Your task to perform on an android device: Open the map Image 0: 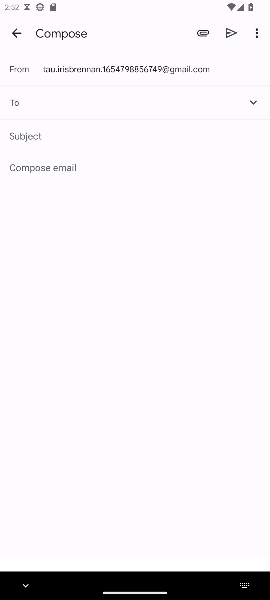
Step 0: press home button
Your task to perform on an android device: Open the map Image 1: 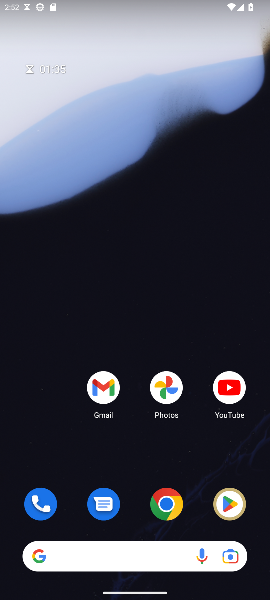
Step 1: drag from (140, 555) to (137, 343)
Your task to perform on an android device: Open the map Image 2: 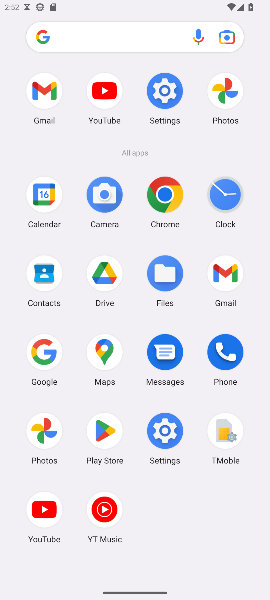
Step 2: click (98, 353)
Your task to perform on an android device: Open the map Image 3: 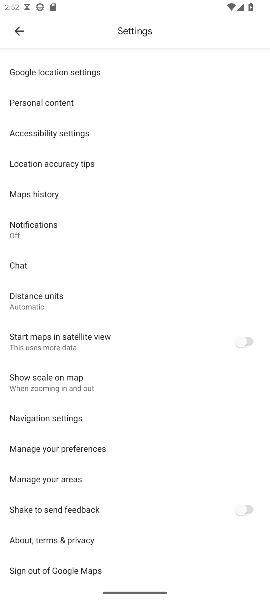
Step 3: drag from (169, 520) to (154, 321)
Your task to perform on an android device: Open the map Image 4: 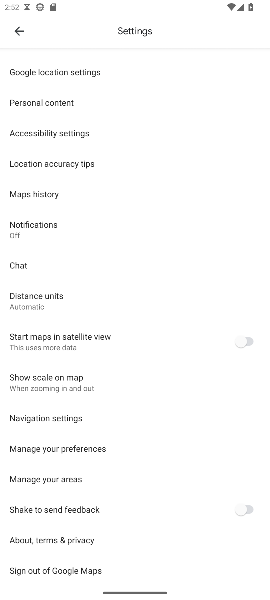
Step 4: click (23, 29)
Your task to perform on an android device: Open the map Image 5: 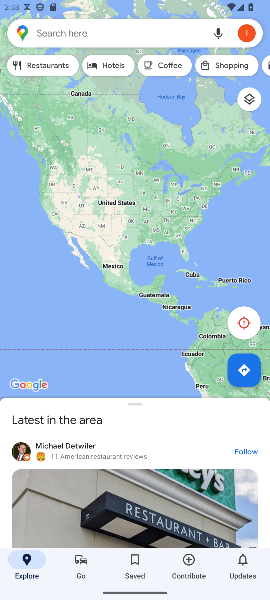
Step 5: task complete